Your task to perform on an android device: turn smart compose on in the gmail app Image 0: 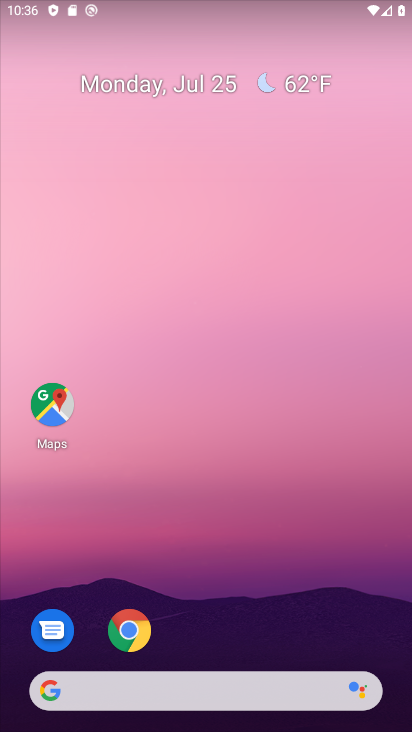
Step 0: drag from (225, 561) to (254, 300)
Your task to perform on an android device: turn smart compose on in the gmail app Image 1: 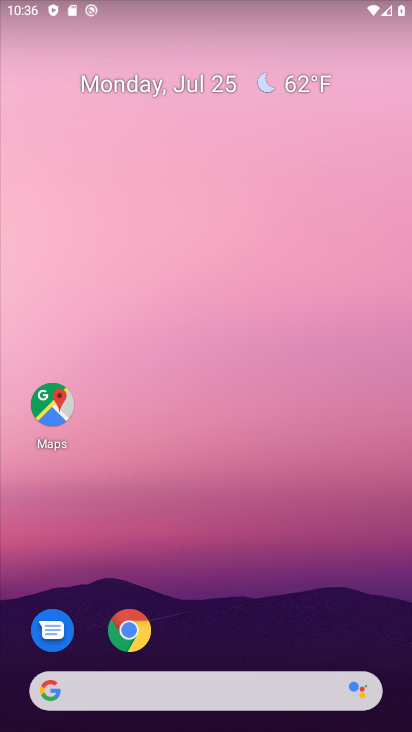
Step 1: drag from (193, 553) to (219, 255)
Your task to perform on an android device: turn smart compose on in the gmail app Image 2: 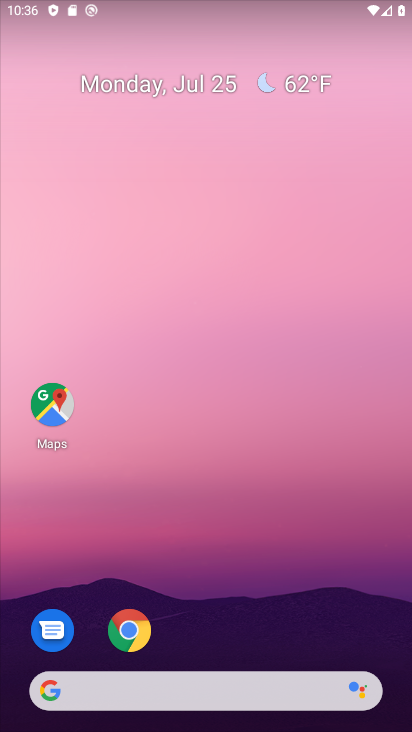
Step 2: drag from (174, 649) to (132, 6)
Your task to perform on an android device: turn smart compose on in the gmail app Image 3: 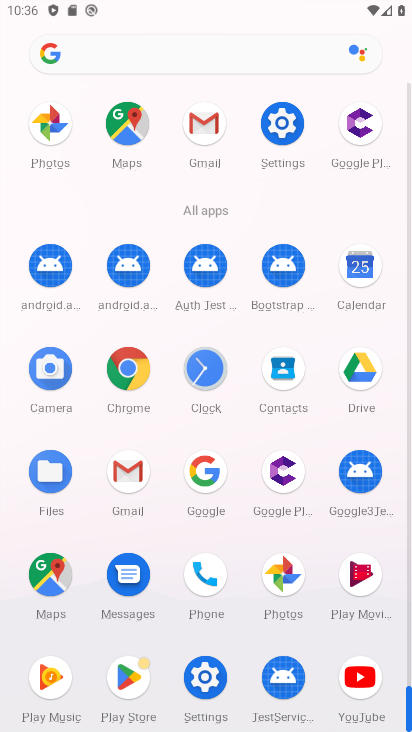
Step 3: click (125, 482)
Your task to perform on an android device: turn smart compose on in the gmail app Image 4: 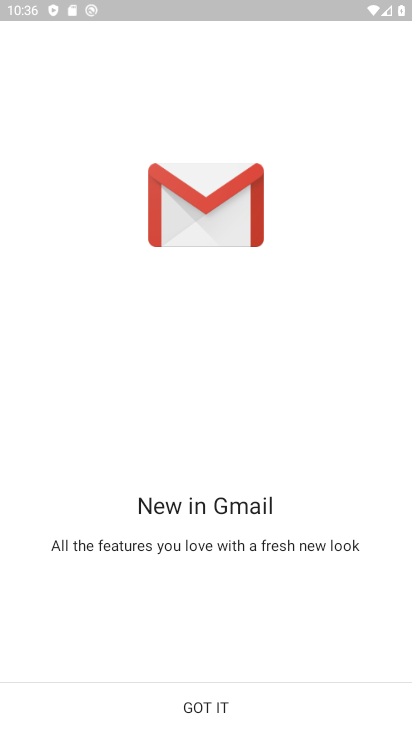
Step 4: click (208, 705)
Your task to perform on an android device: turn smart compose on in the gmail app Image 5: 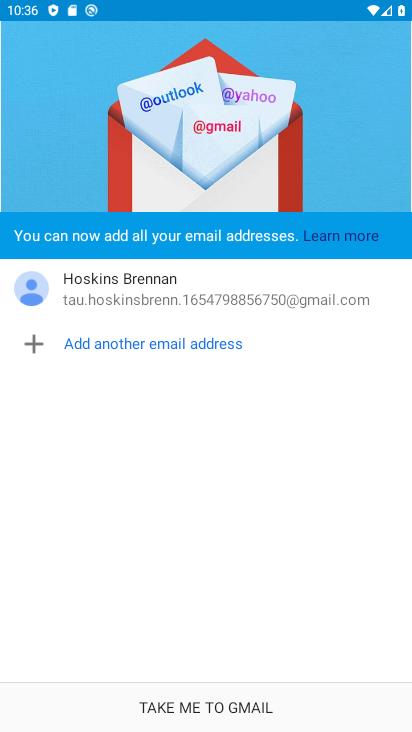
Step 5: click (206, 698)
Your task to perform on an android device: turn smart compose on in the gmail app Image 6: 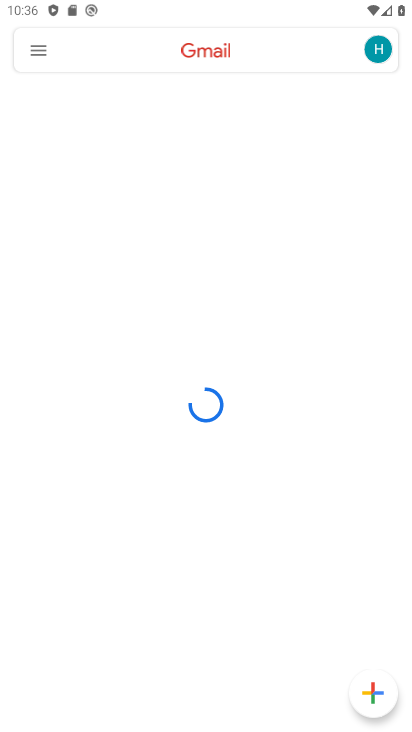
Step 6: click (37, 45)
Your task to perform on an android device: turn smart compose on in the gmail app Image 7: 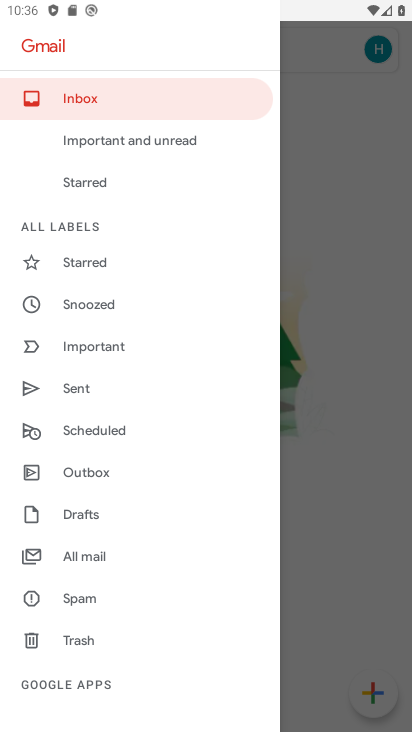
Step 7: drag from (88, 604) to (140, 189)
Your task to perform on an android device: turn smart compose on in the gmail app Image 8: 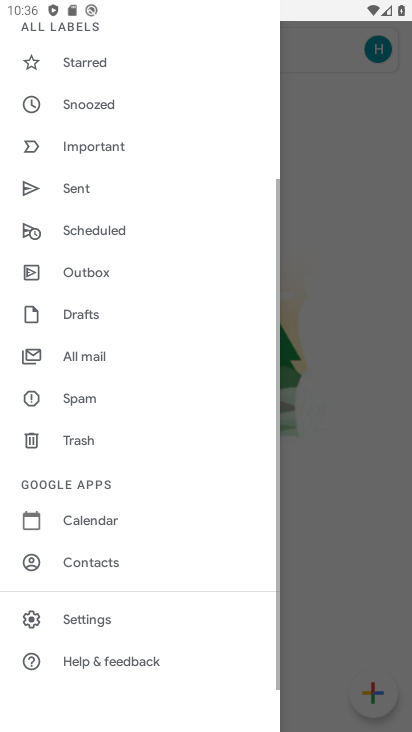
Step 8: click (88, 603)
Your task to perform on an android device: turn smart compose on in the gmail app Image 9: 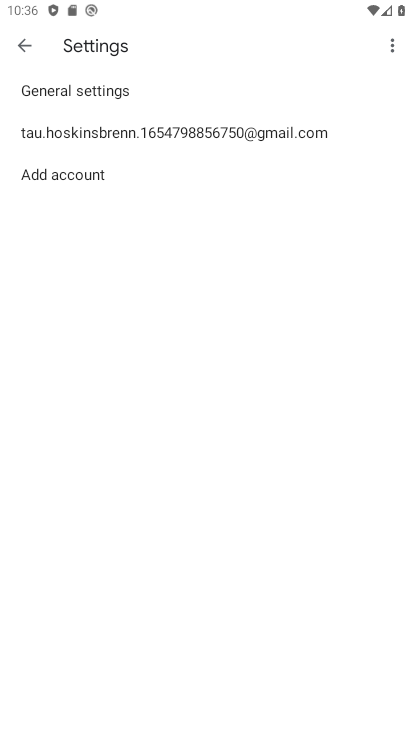
Step 9: drag from (177, 531) to (177, 157)
Your task to perform on an android device: turn smart compose on in the gmail app Image 10: 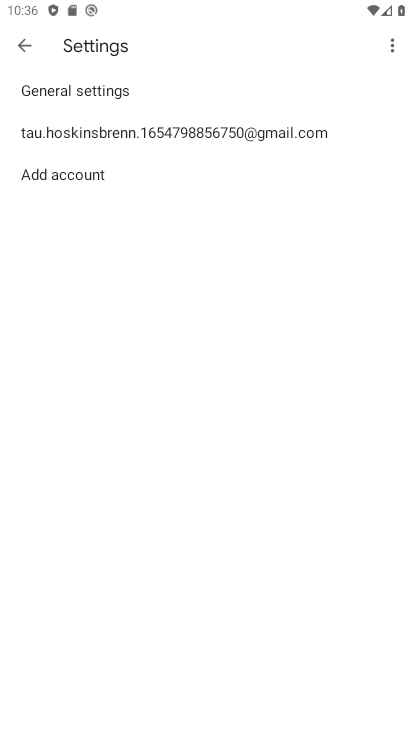
Step 10: click (137, 127)
Your task to perform on an android device: turn smart compose on in the gmail app Image 11: 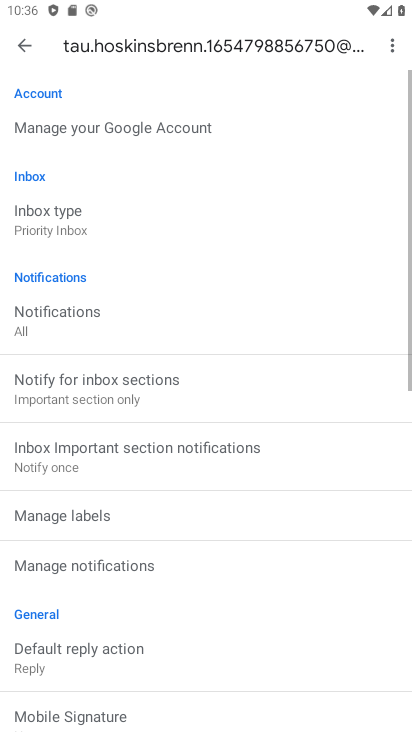
Step 11: task complete